Your task to perform on an android device: turn off translation in the chrome app Image 0: 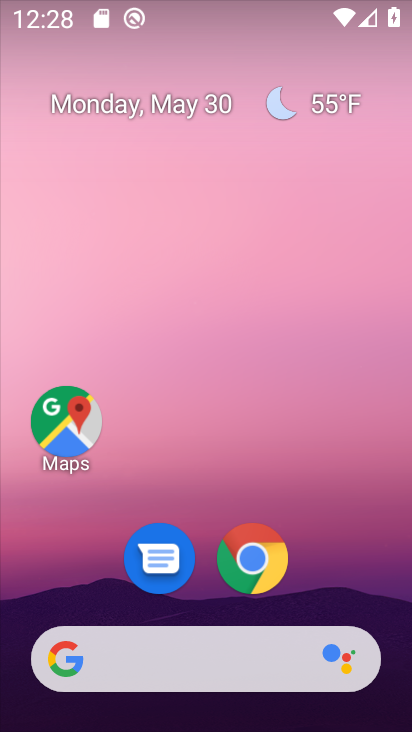
Step 0: drag from (353, 387) to (319, 17)
Your task to perform on an android device: turn off translation in the chrome app Image 1: 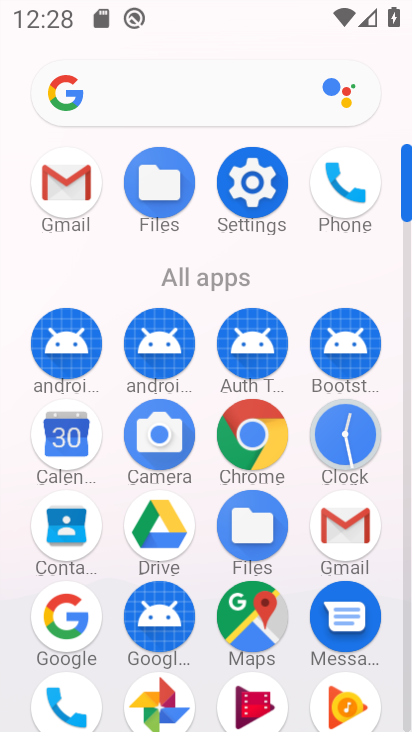
Step 1: click (239, 432)
Your task to perform on an android device: turn off translation in the chrome app Image 2: 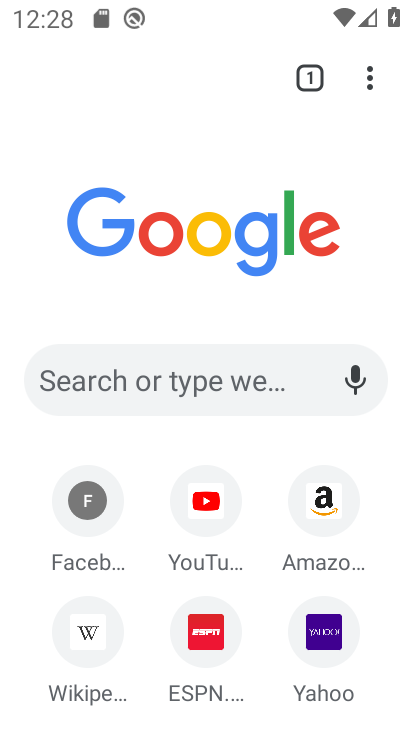
Step 2: drag from (363, 76) to (102, 622)
Your task to perform on an android device: turn off translation in the chrome app Image 3: 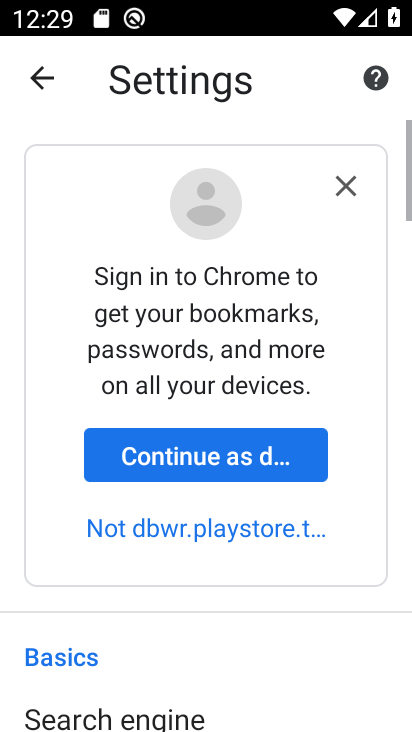
Step 3: drag from (107, 599) to (162, 131)
Your task to perform on an android device: turn off translation in the chrome app Image 4: 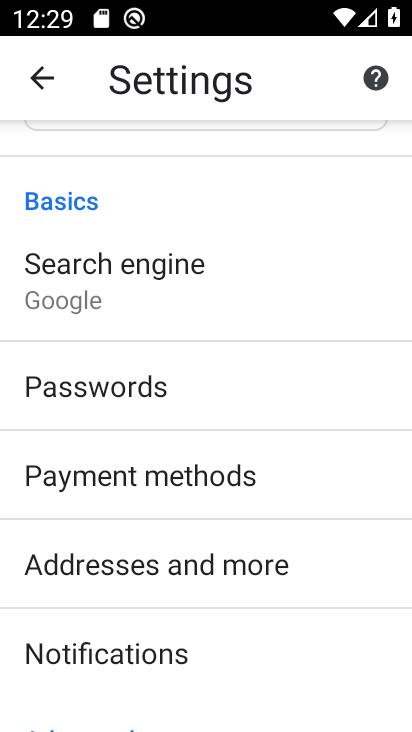
Step 4: drag from (158, 675) to (235, 139)
Your task to perform on an android device: turn off translation in the chrome app Image 5: 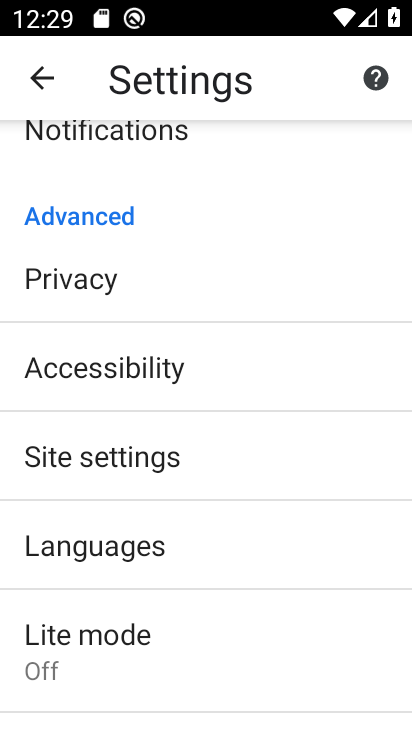
Step 5: click (169, 557)
Your task to perform on an android device: turn off translation in the chrome app Image 6: 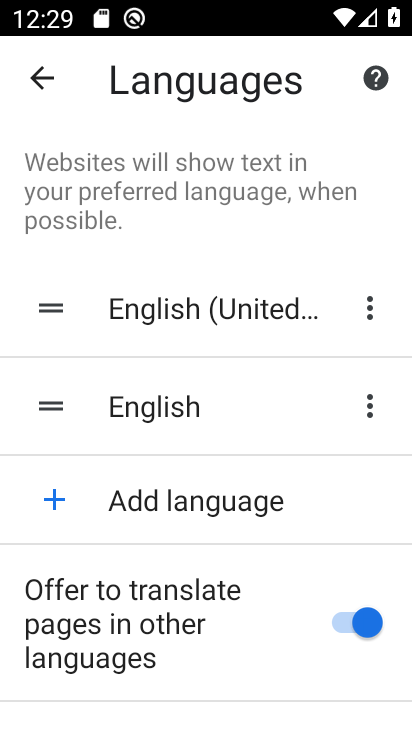
Step 6: drag from (201, 587) to (243, 324)
Your task to perform on an android device: turn off translation in the chrome app Image 7: 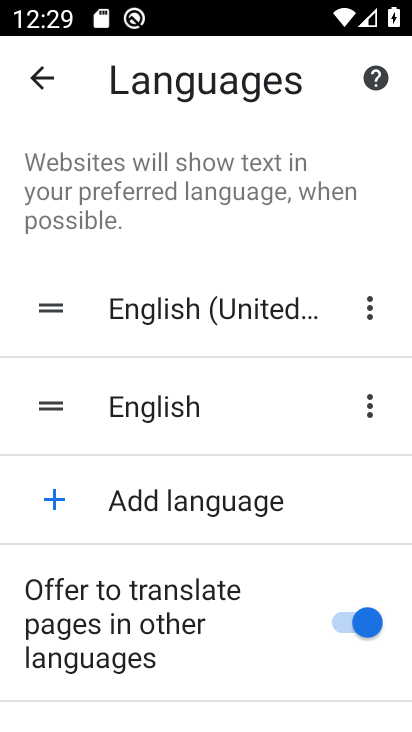
Step 7: click (348, 616)
Your task to perform on an android device: turn off translation in the chrome app Image 8: 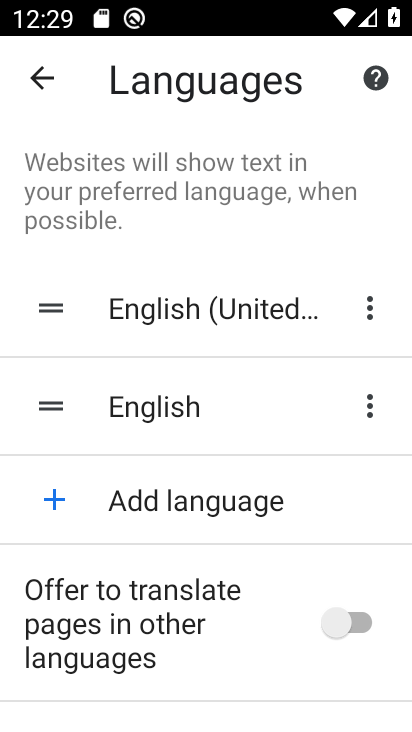
Step 8: task complete